Your task to perform on an android device: see sites visited before in the chrome app Image 0: 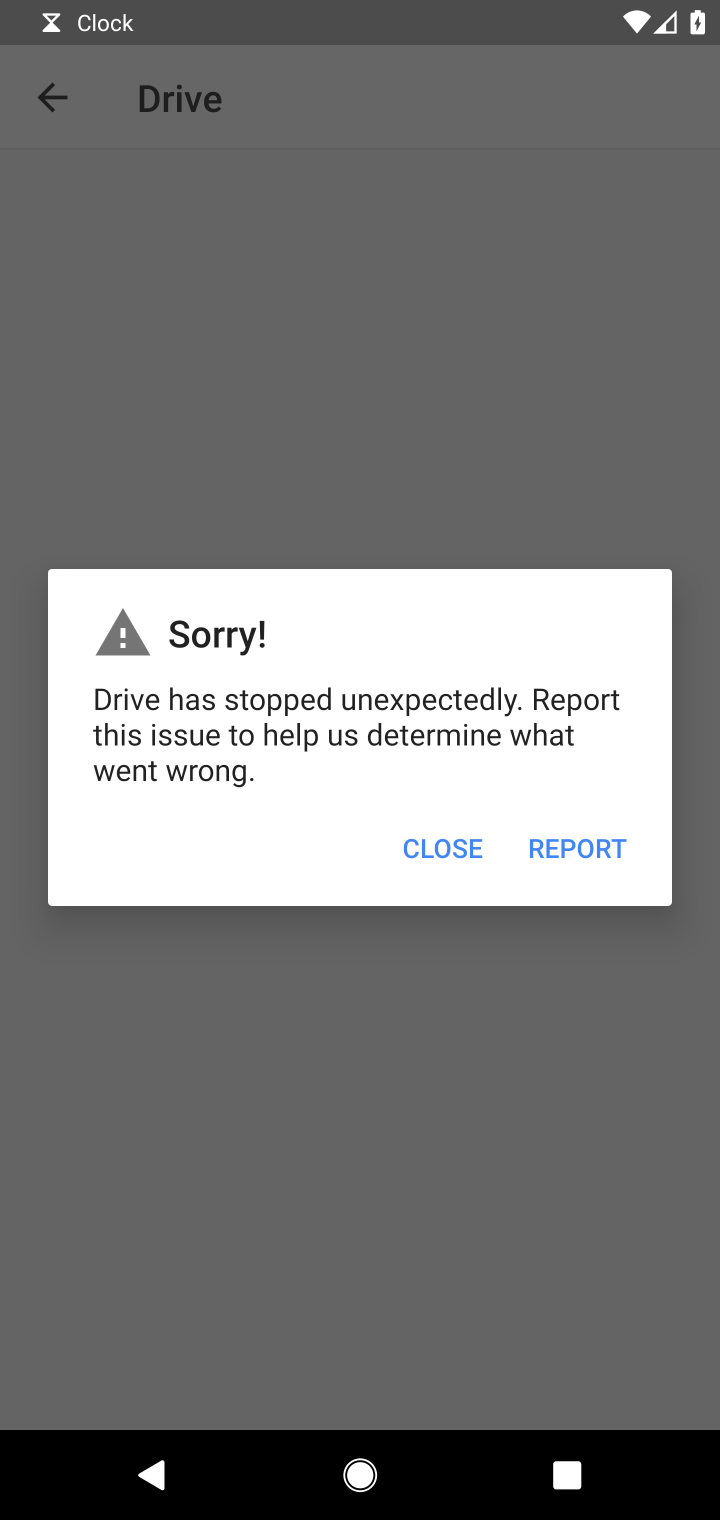
Step 0: press home button
Your task to perform on an android device: see sites visited before in the chrome app Image 1: 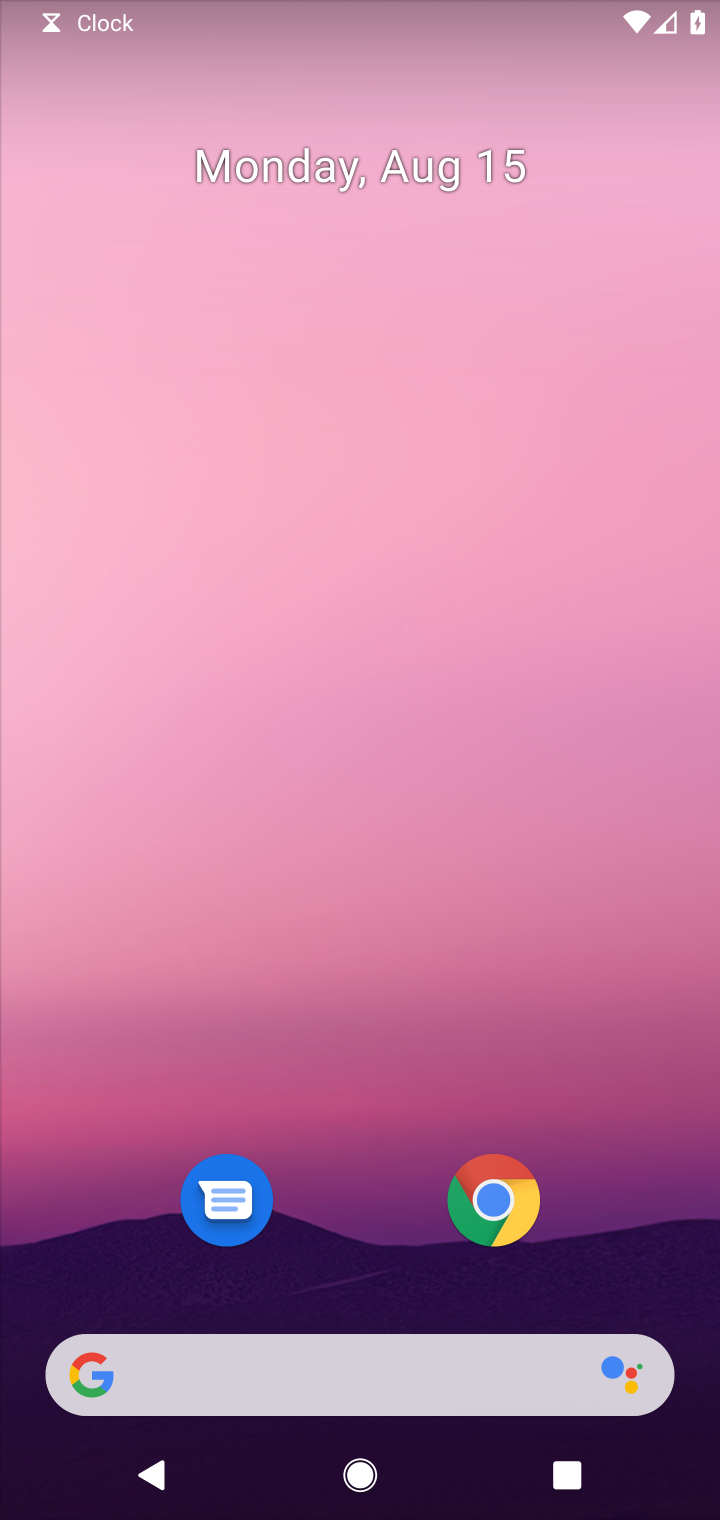
Step 1: click (512, 1222)
Your task to perform on an android device: see sites visited before in the chrome app Image 2: 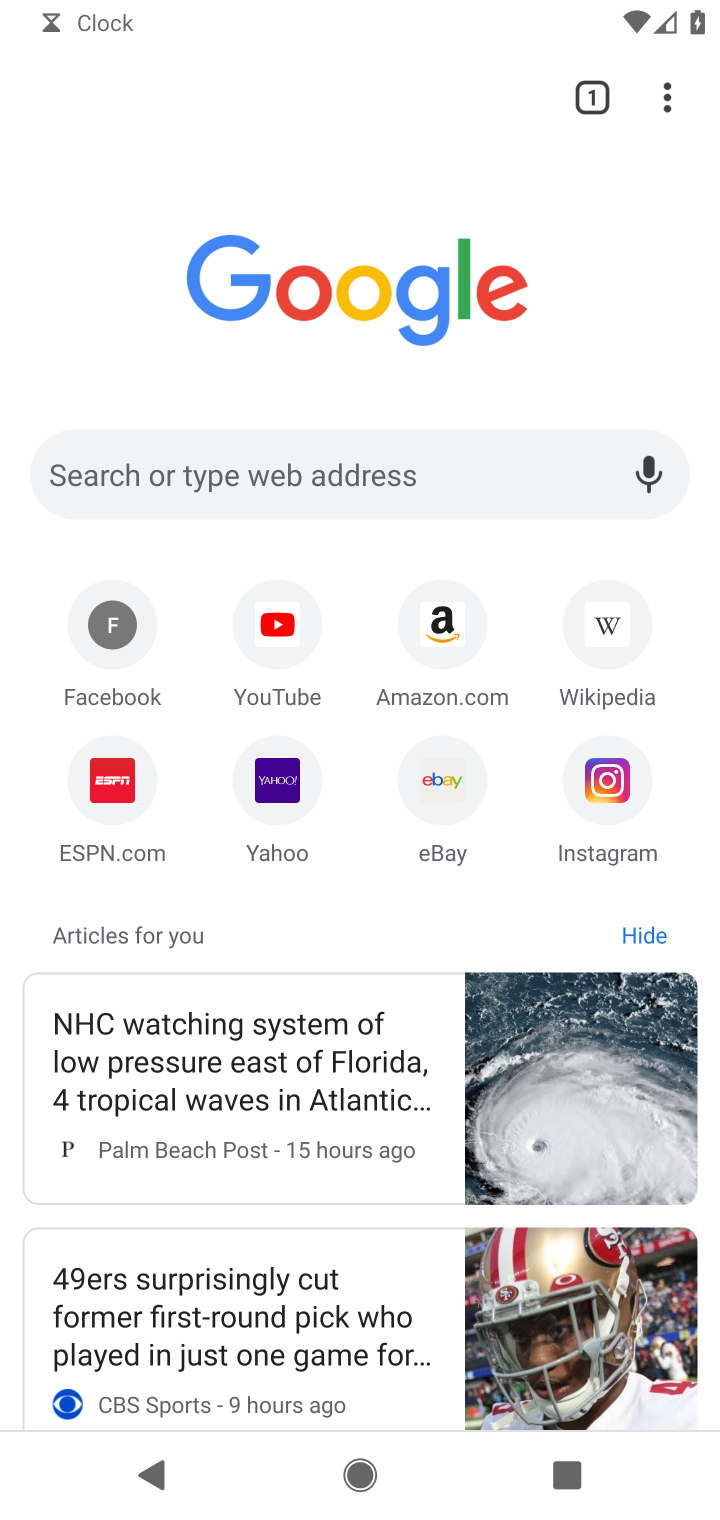
Step 2: click (658, 90)
Your task to perform on an android device: see sites visited before in the chrome app Image 3: 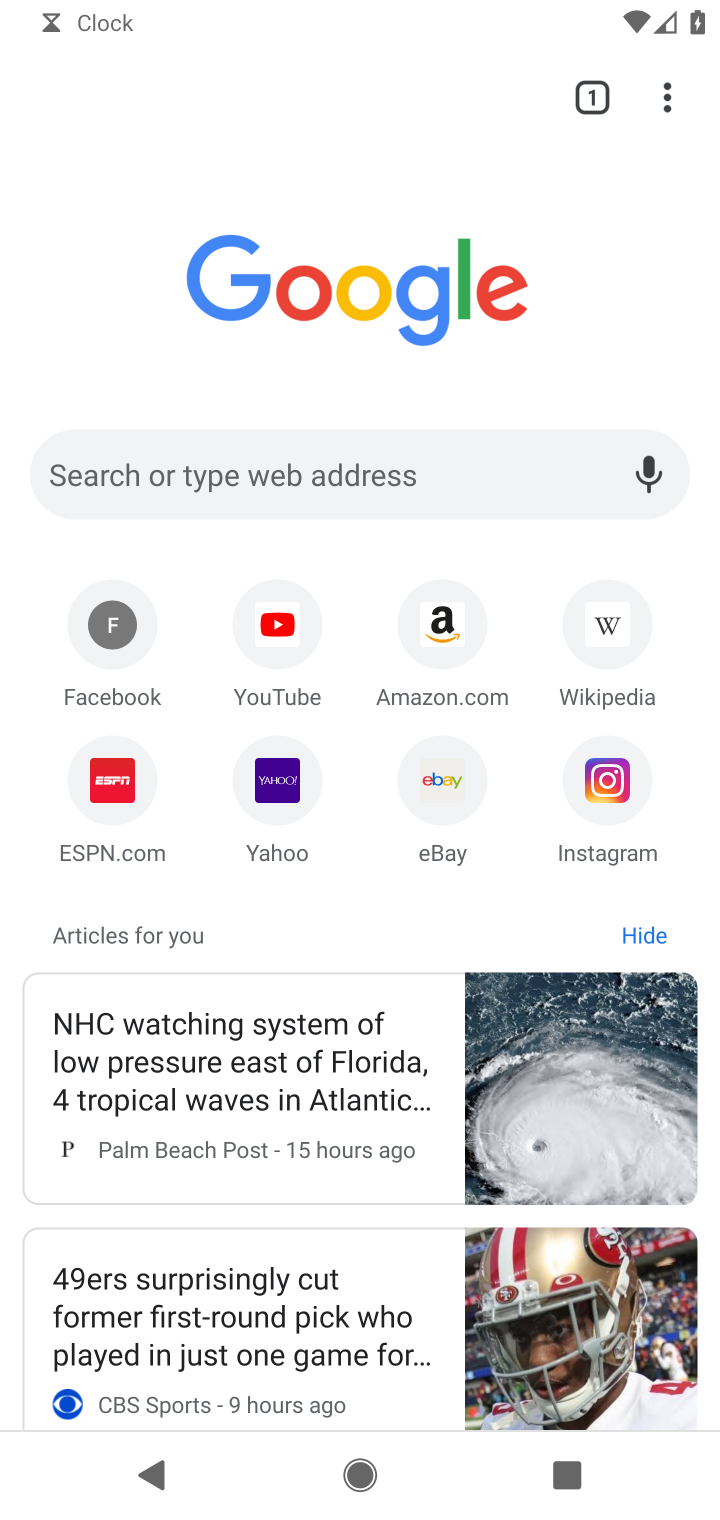
Step 3: click (659, 87)
Your task to perform on an android device: see sites visited before in the chrome app Image 4: 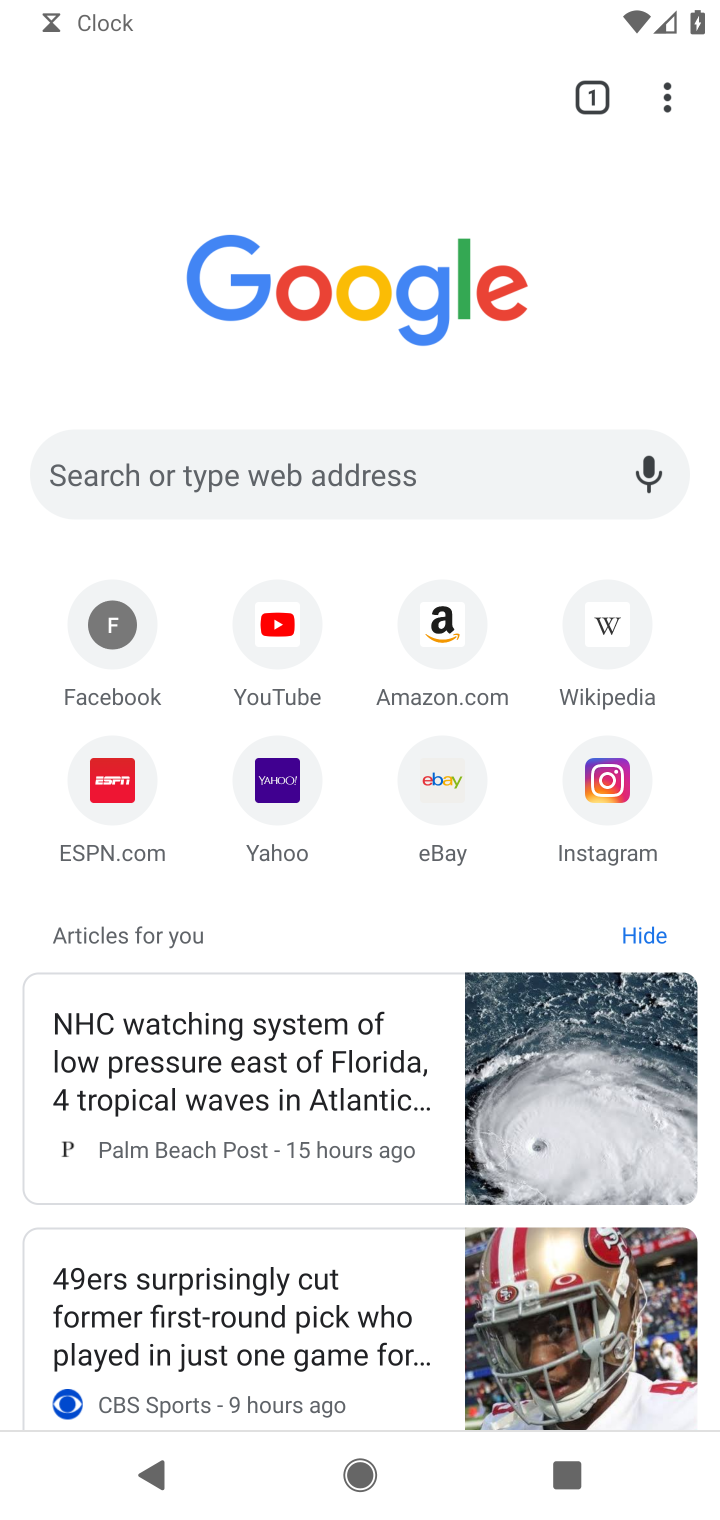
Step 4: click (659, 87)
Your task to perform on an android device: see sites visited before in the chrome app Image 5: 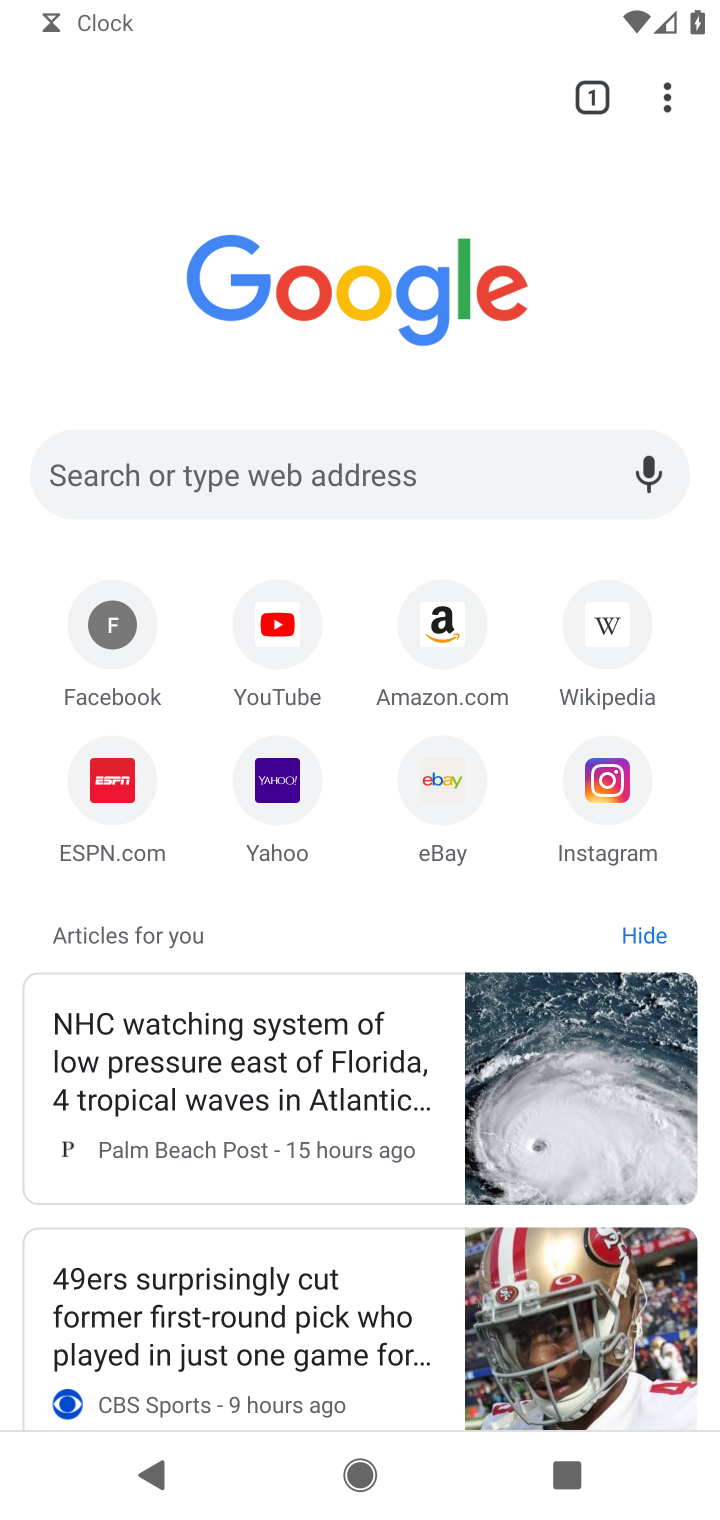
Step 5: click (659, 87)
Your task to perform on an android device: see sites visited before in the chrome app Image 6: 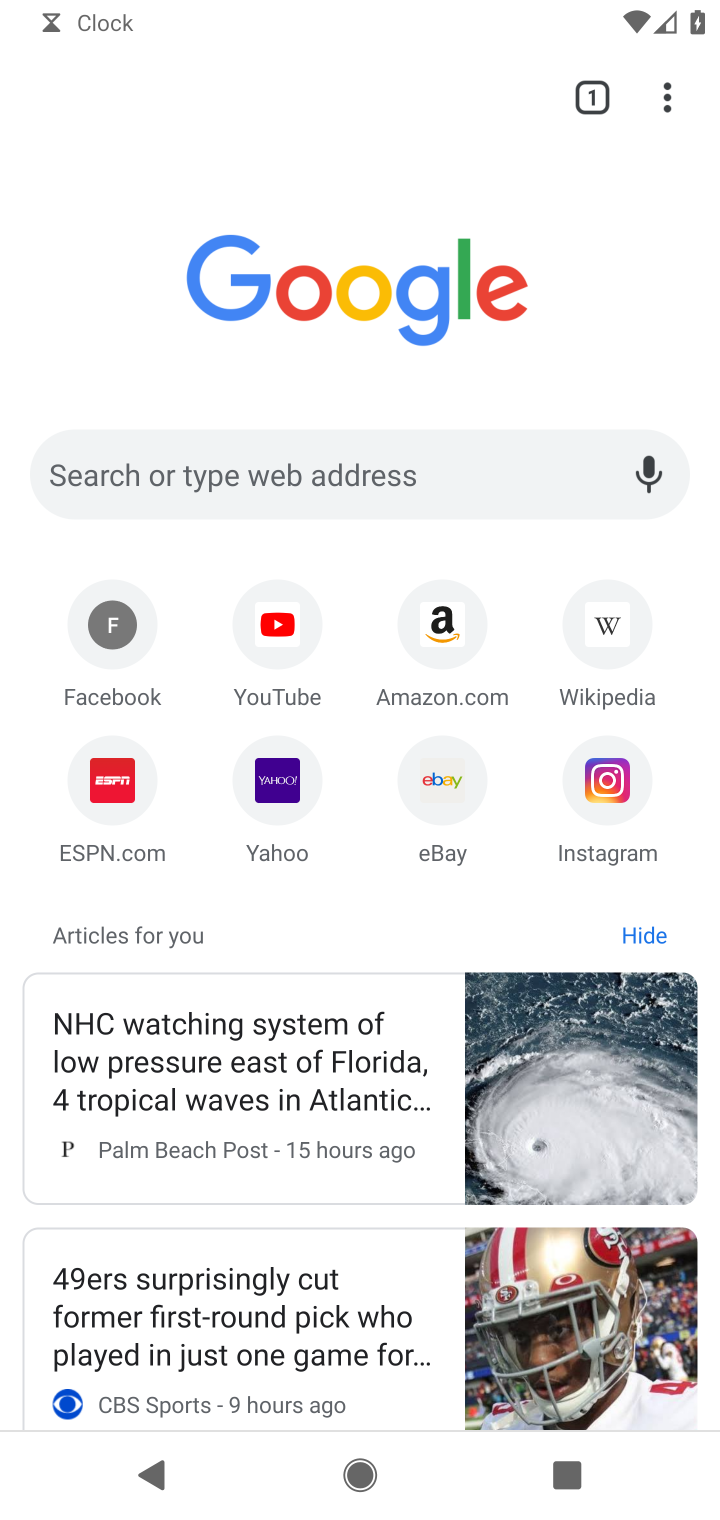
Step 6: click (659, 87)
Your task to perform on an android device: see sites visited before in the chrome app Image 7: 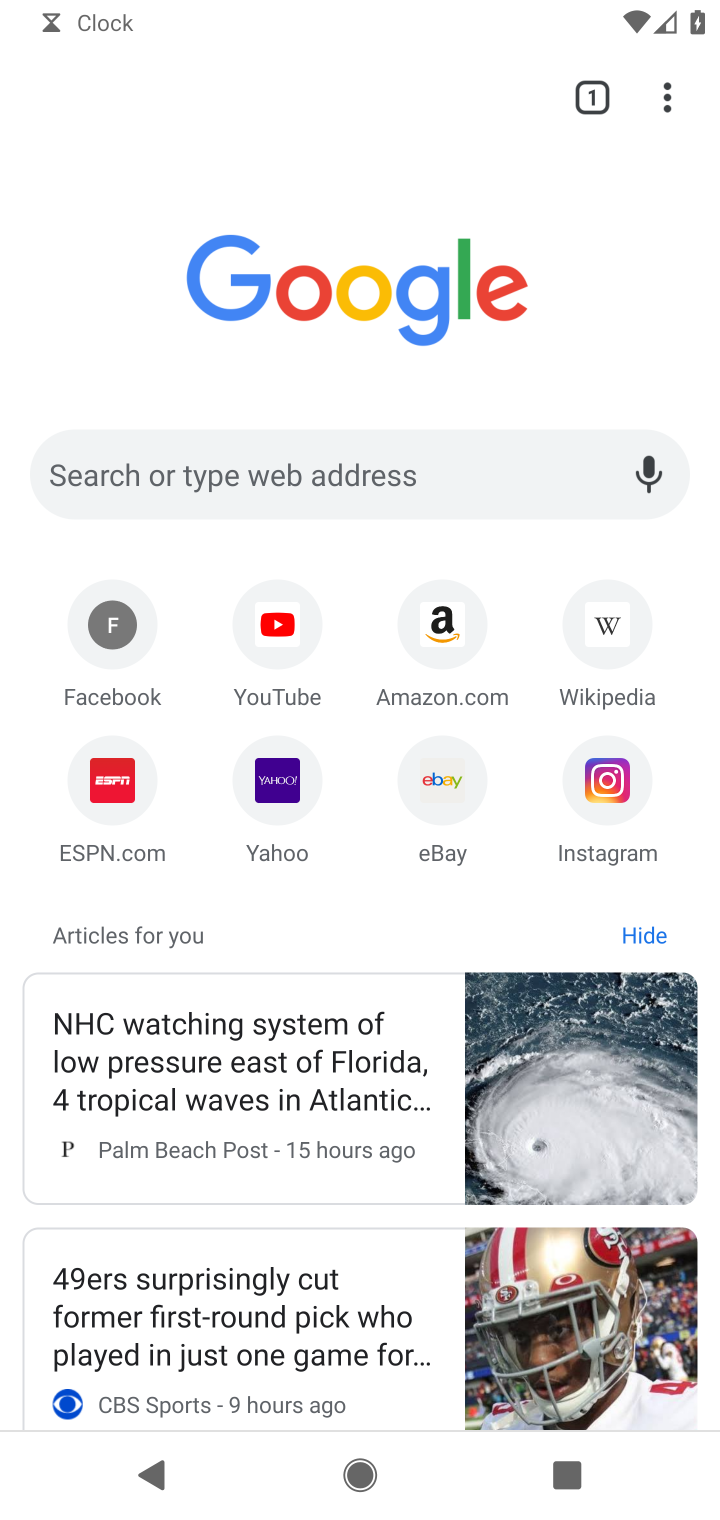
Step 7: click (668, 94)
Your task to perform on an android device: see sites visited before in the chrome app Image 8: 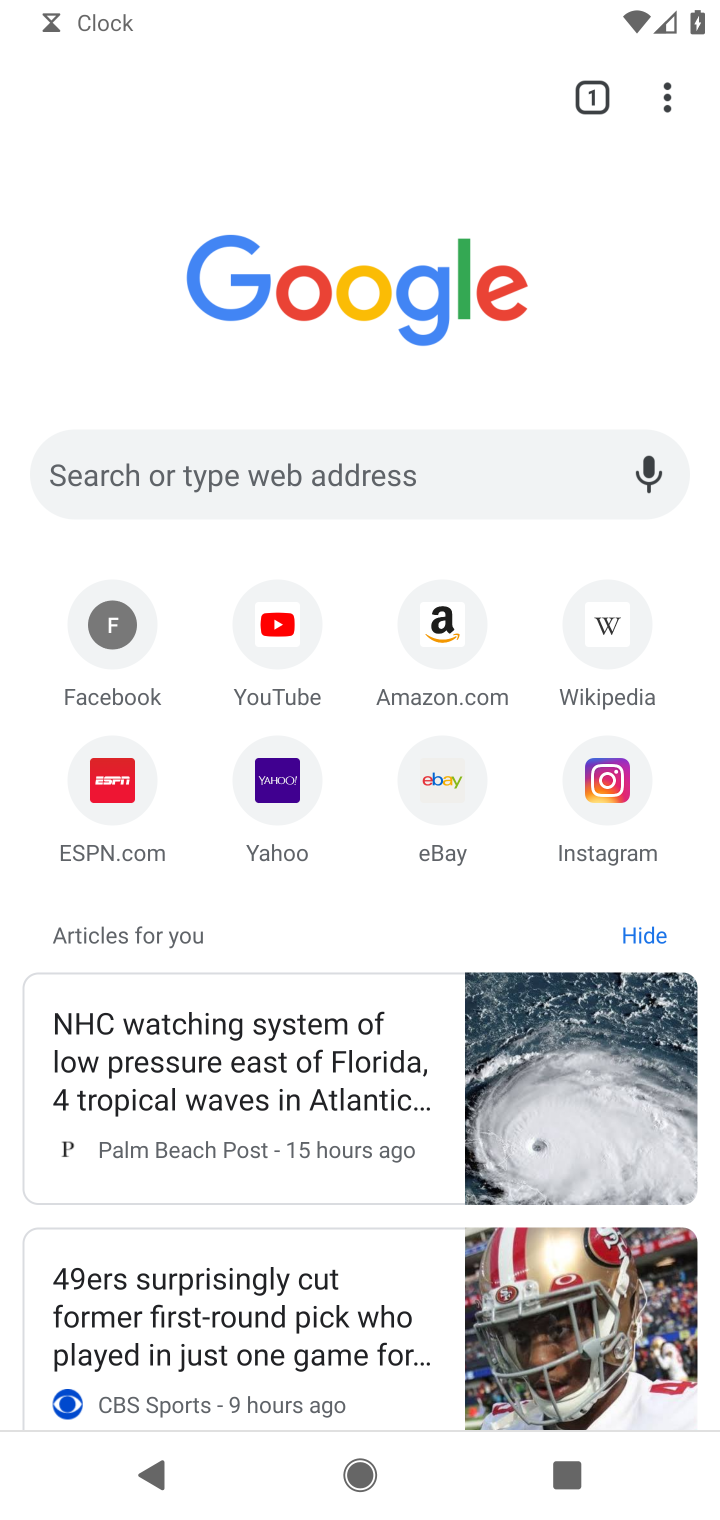
Step 8: click (668, 94)
Your task to perform on an android device: see sites visited before in the chrome app Image 9: 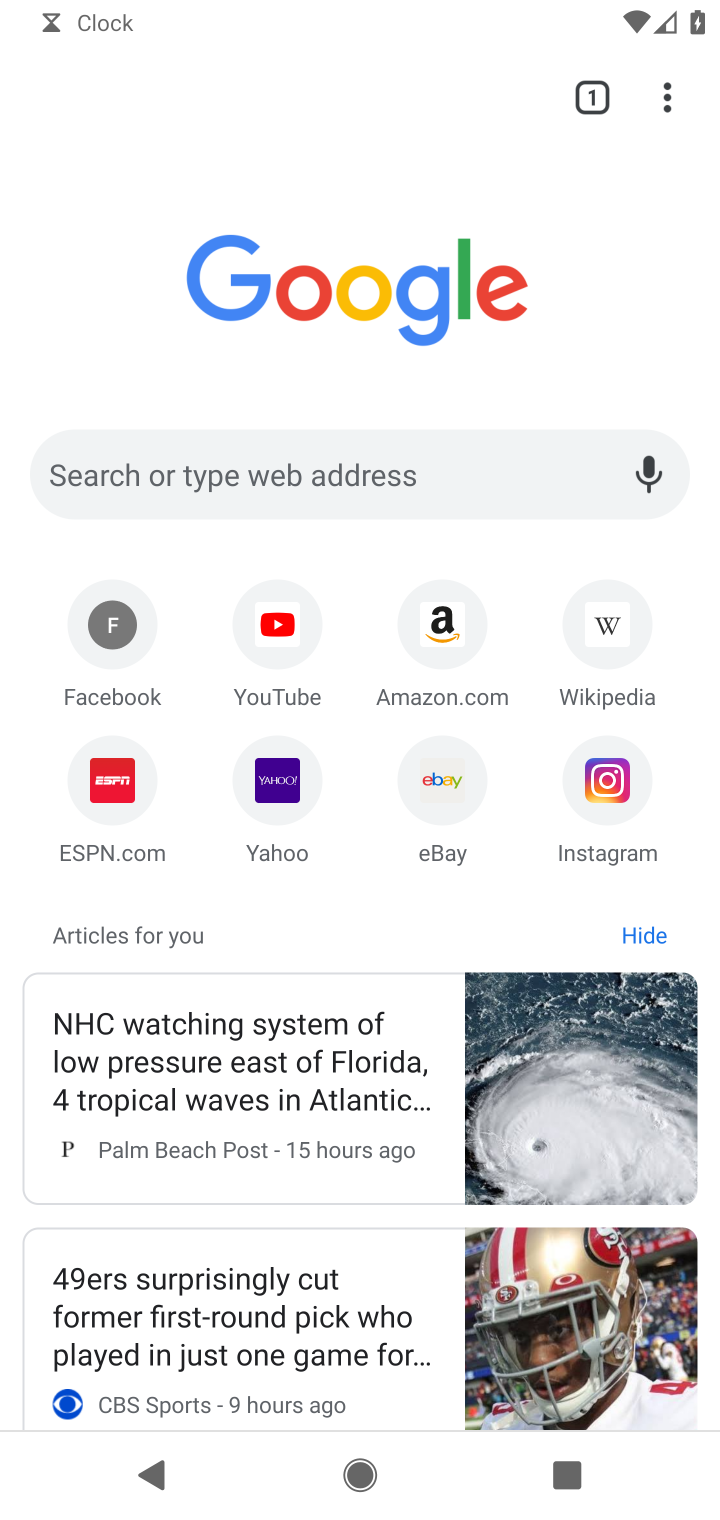
Step 9: click (680, 101)
Your task to perform on an android device: see sites visited before in the chrome app Image 10: 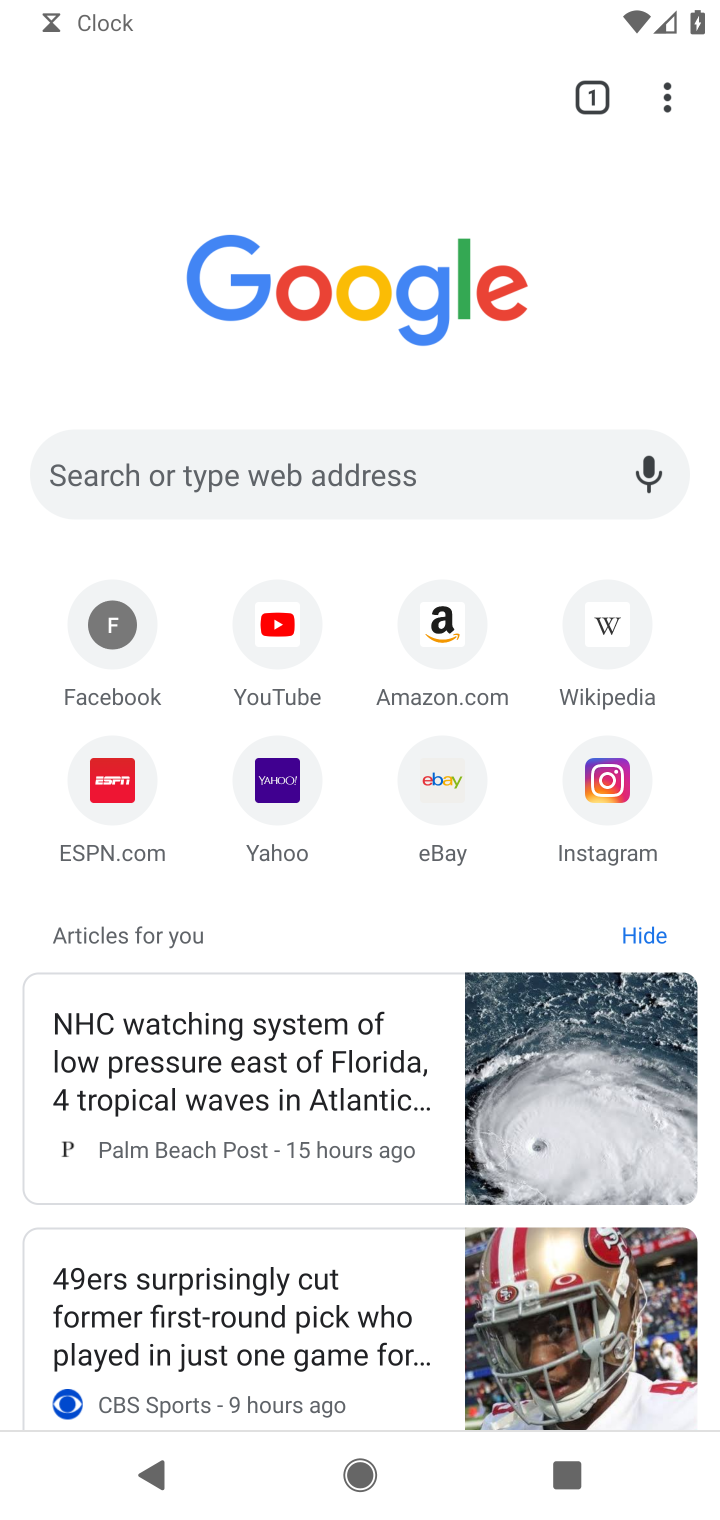
Step 10: click (666, 102)
Your task to perform on an android device: see sites visited before in the chrome app Image 11: 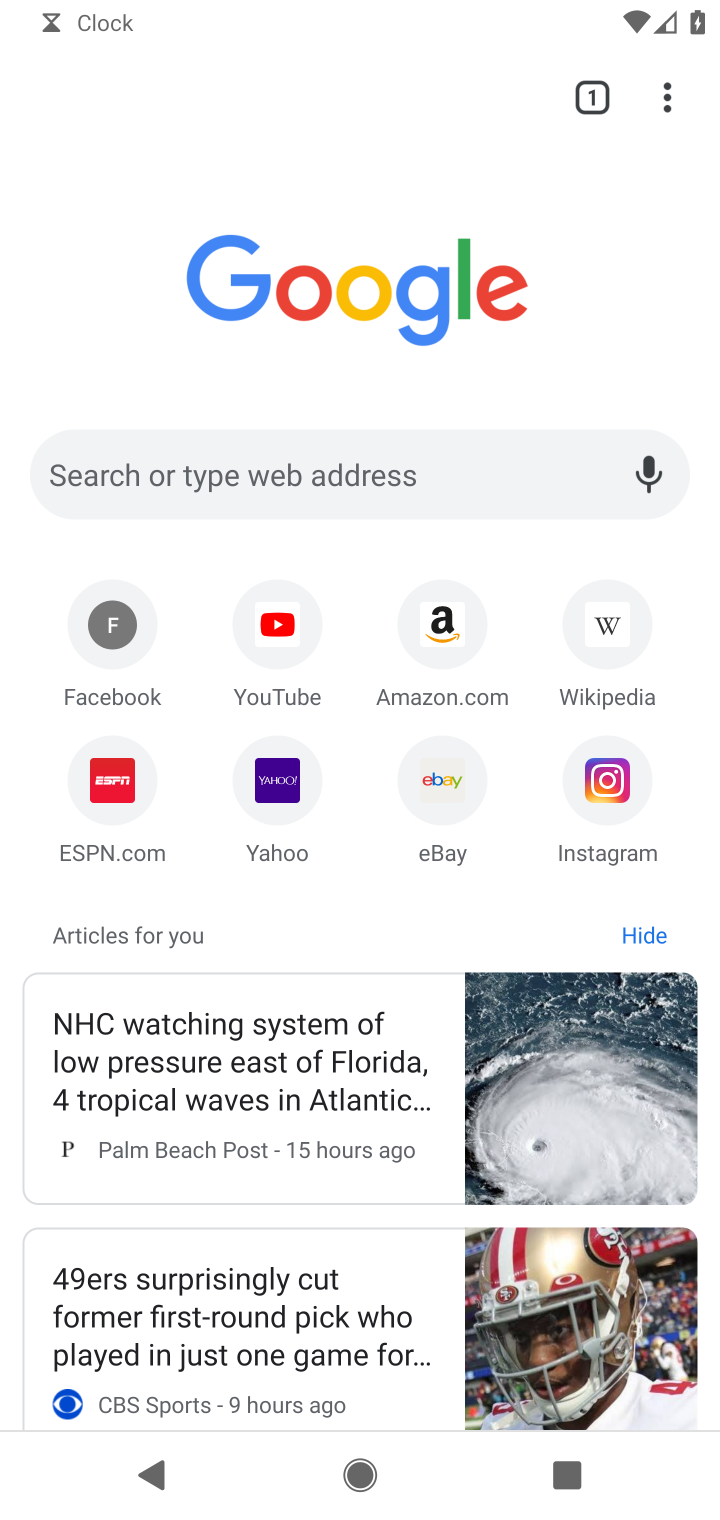
Step 11: task complete